Your task to perform on an android device: Go to settings Image 0: 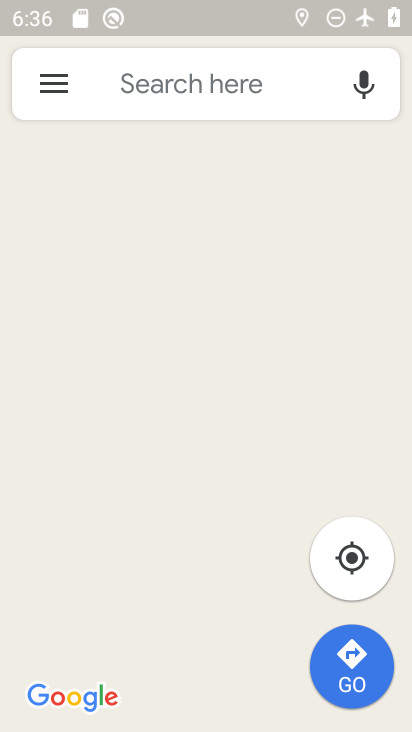
Step 0: press home button
Your task to perform on an android device: Go to settings Image 1: 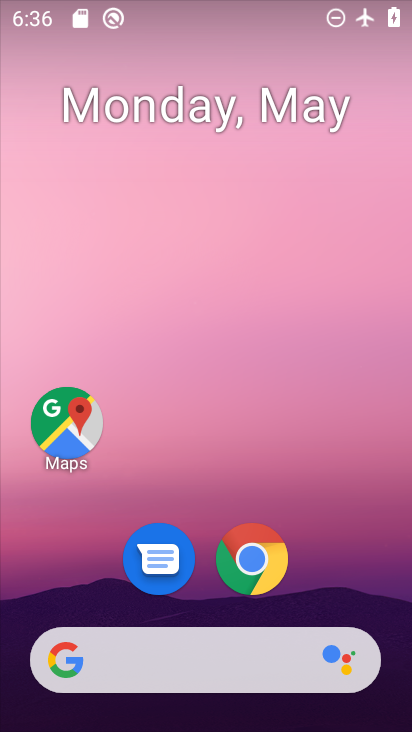
Step 1: drag from (371, 535) to (192, 24)
Your task to perform on an android device: Go to settings Image 2: 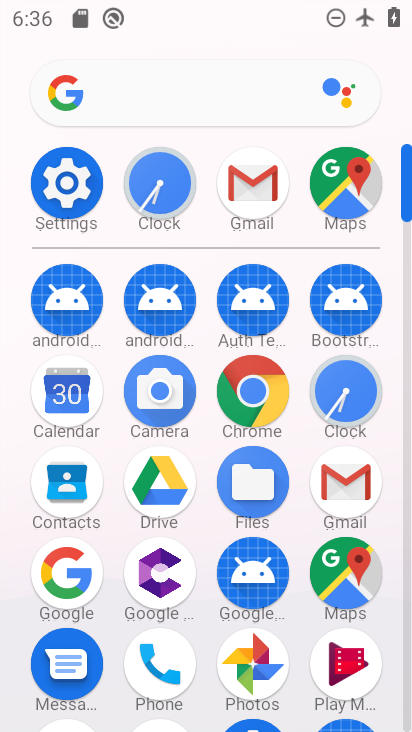
Step 2: click (76, 181)
Your task to perform on an android device: Go to settings Image 3: 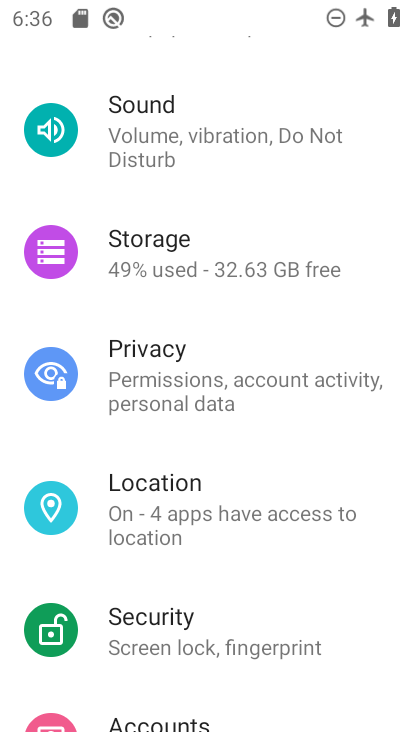
Step 3: task complete